Your task to perform on an android device: Go to CNN.com Image 0: 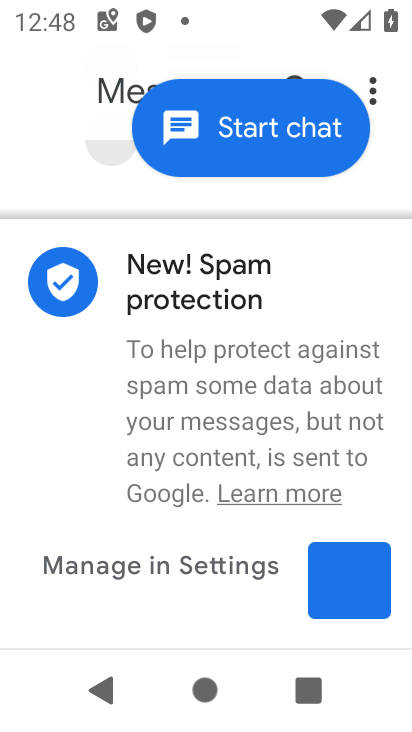
Step 0: press home button
Your task to perform on an android device: Go to CNN.com Image 1: 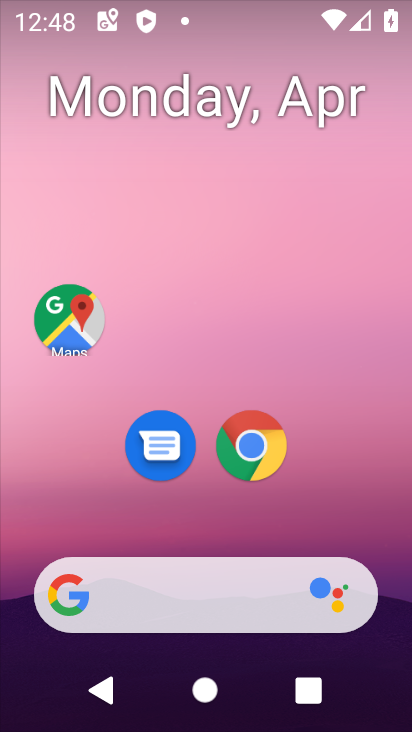
Step 1: drag from (366, 497) to (359, 101)
Your task to perform on an android device: Go to CNN.com Image 2: 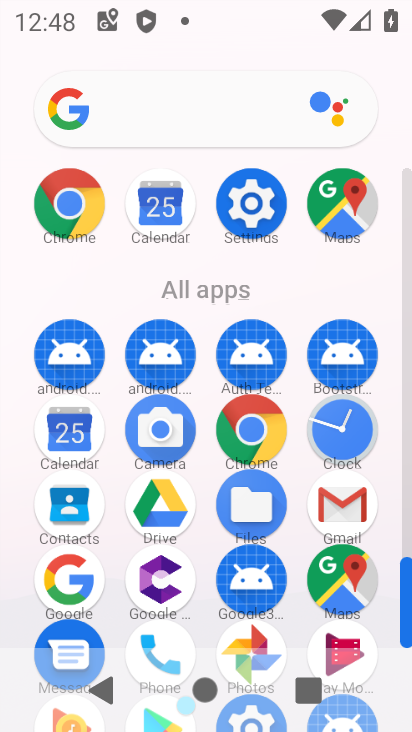
Step 2: click (263, 443)
Your task to perform on an android device: Go to CNN.com Image 3: 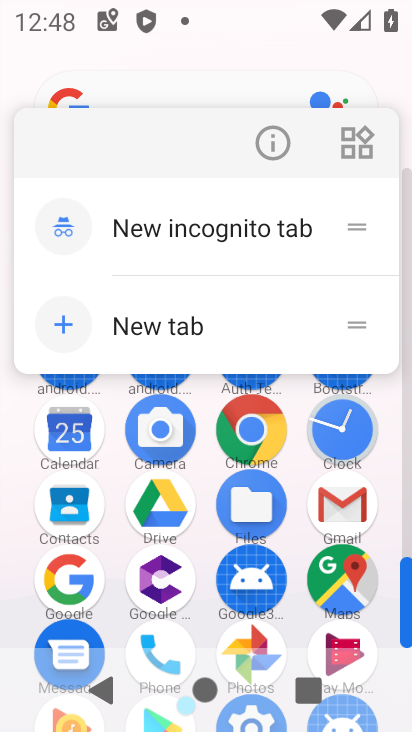
Step 3: click (246, 431)
Your task to perform on an android device: Go to CNN.com Image 4: 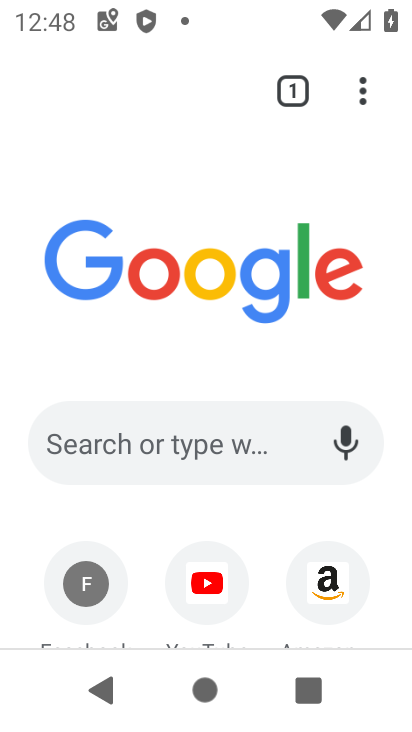
Step 4: click (239, 443)
Your task to perform on an android device: Go to CNN.com Image 5: 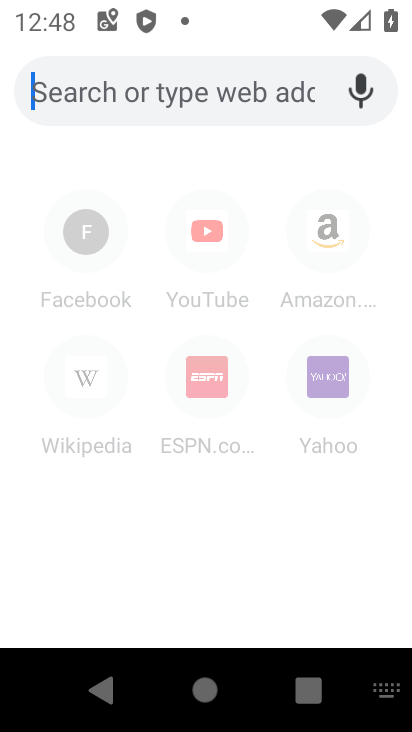
Step 5: type "cnn.com"
Your task to perform on an android device: Go to CNN.com Image 6: 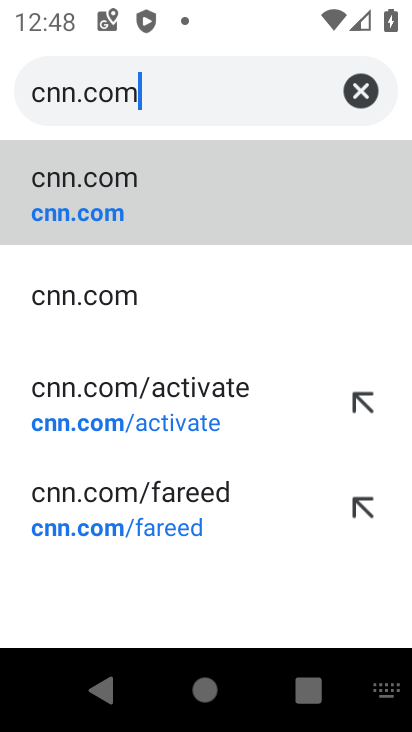
Step 6: click (99, 198)
Your task to perform on an android device: Go to CNN.com Image 7: 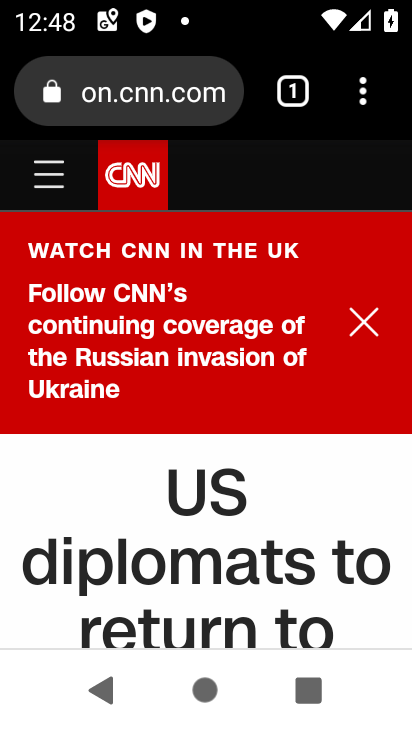
Step 7: task complete